Your task to perform on an android device: Check the weather Image 0: 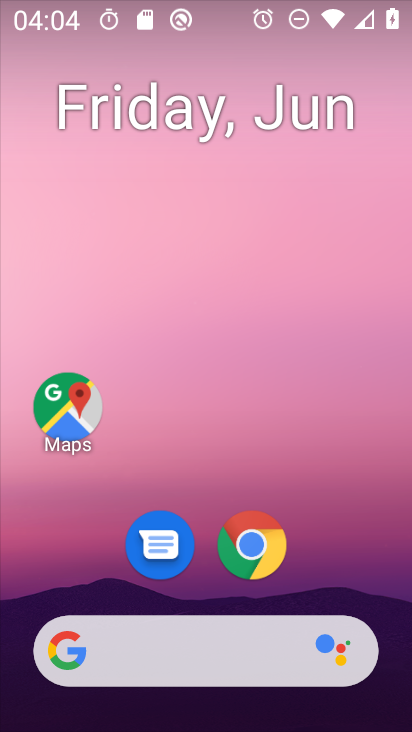
Step 0: click (183, 633)
Your task to perform on an android device: Check the weather Image 1: 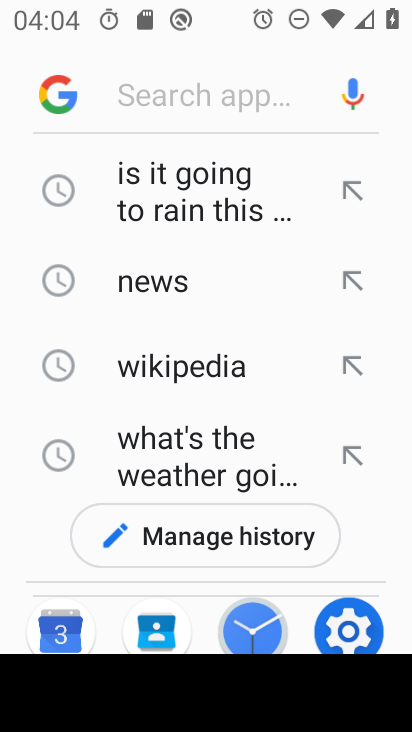
Step 1: type "weather"
Your task to perform on an android device: Check the weather Image 2: 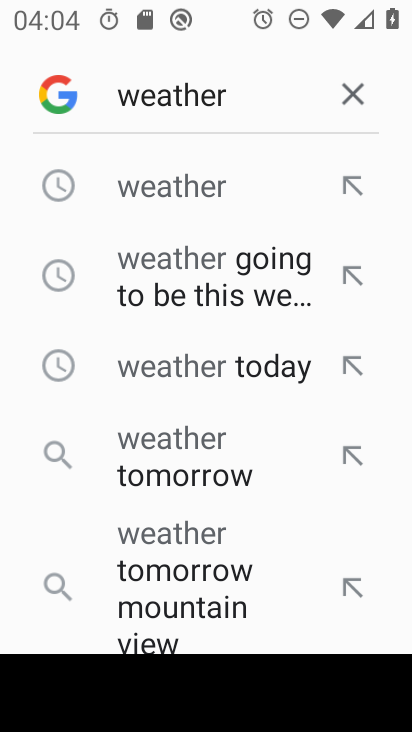
Step 2: click (184, 208)
Your task to perform on an android device: Check the weather Image 3: 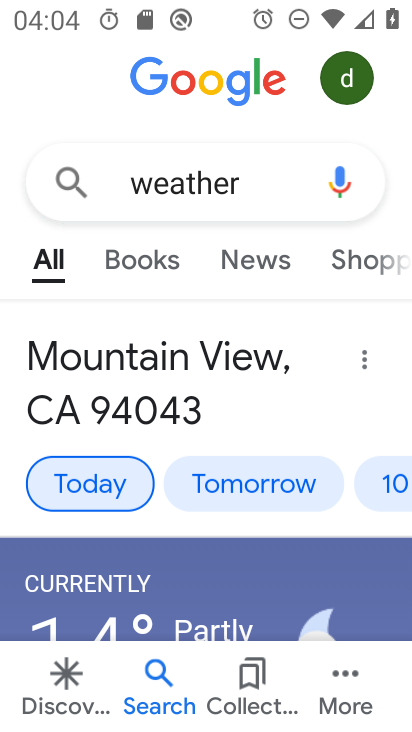
Step 3: task complete